Your task to perform on an android device: check data usage Image 0: 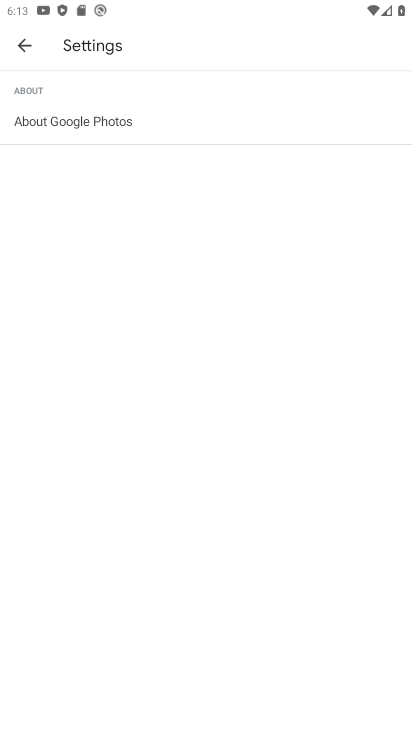
Step 0: press home button
Your task to perform on an android device: check data usage Image 1: 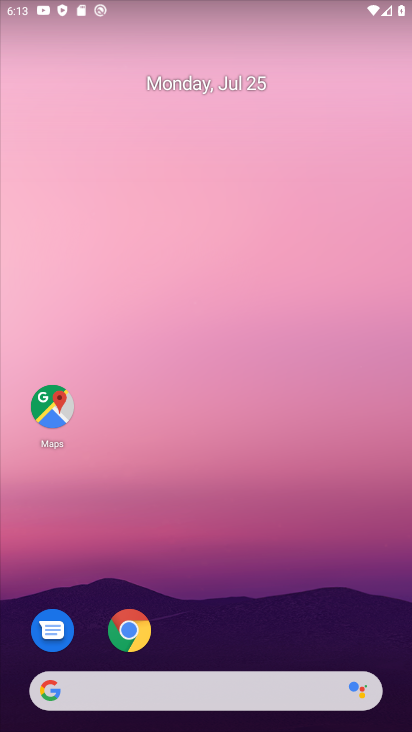
Step 1: drag from (200, 694) to (282, 213)
Your task to perform on an android device: check data usage Image 2: 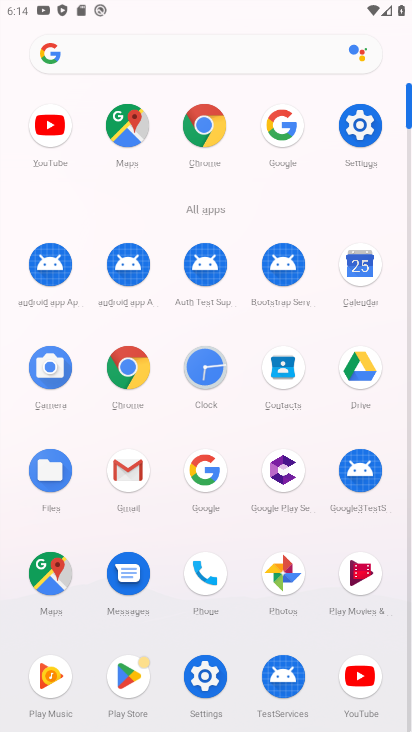
Step 2: click (359, 125)
Your task to perform on an android device: check data usage Image 3: 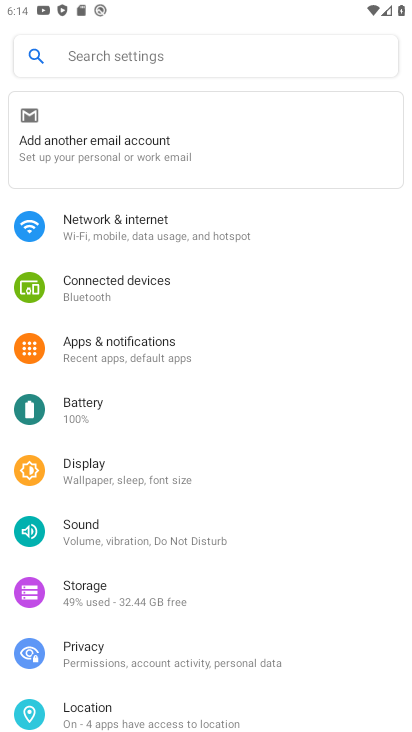
Step 3: click (179, 240)
Your task to perform on an android device: check data usage Image 4: 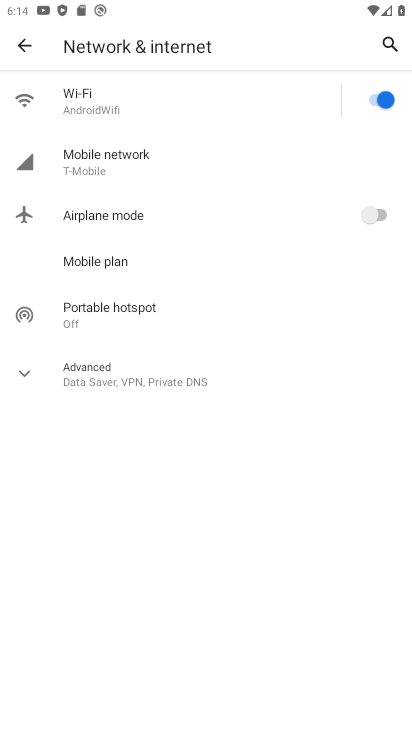
Step 4: click (120, 162)
Your task to perform on an android device: check data usage Image 5: 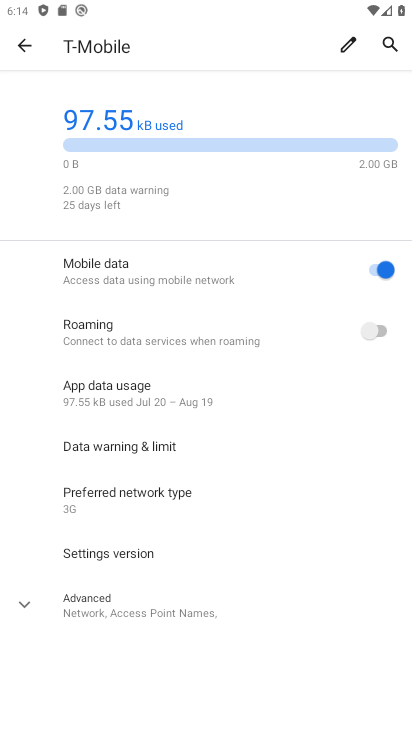
Step 5: task complete